Your task to perform on an android device: toggle show notifications on the lock screen Image 0: 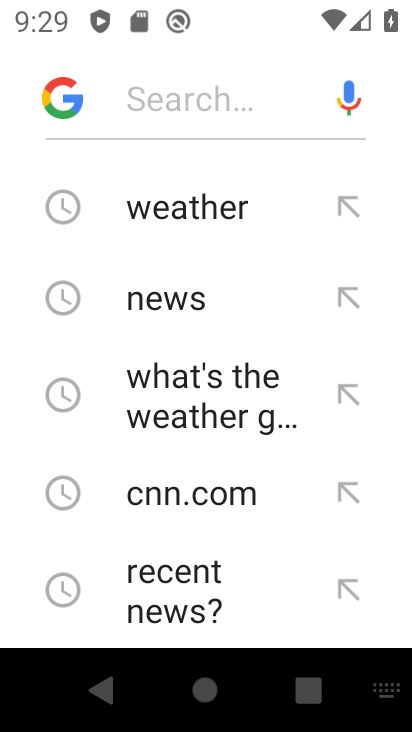
Step 0: press back button
Your task to perform on an android device: toggle show notifications on the lock screen Image 1: 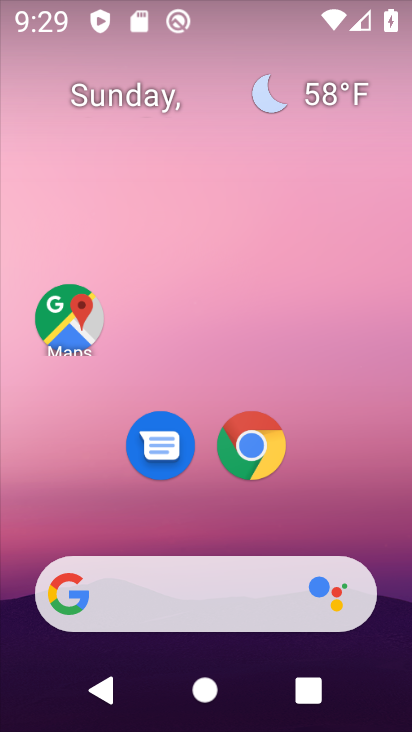
Step 1: drag from (161, 589) to (219, 152)
Your task to perform on an android device: toggle show notifications on the lock screen Image 2: 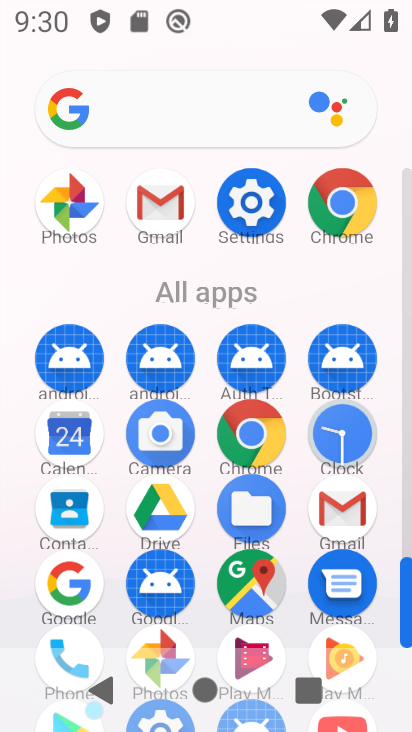
Step 2: click (247, 206)
Your task to perform on an android device: toggle show notifications on the lock screen Image 3: 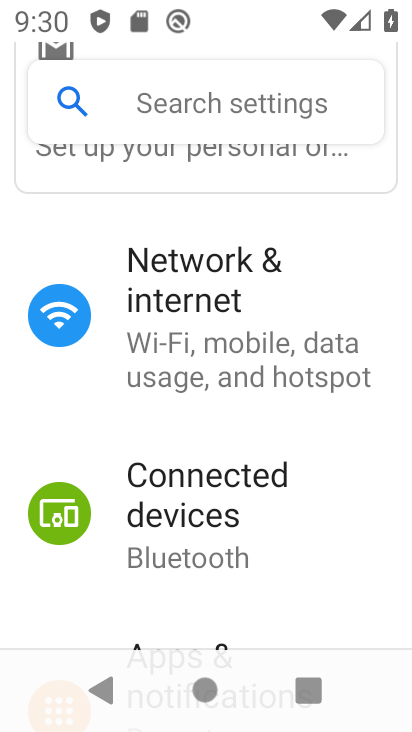
Step 3: drag from (157, 463) to (167, 68)
Your task to perform on an android device: toggle show notifications on the lock screen Image 4: 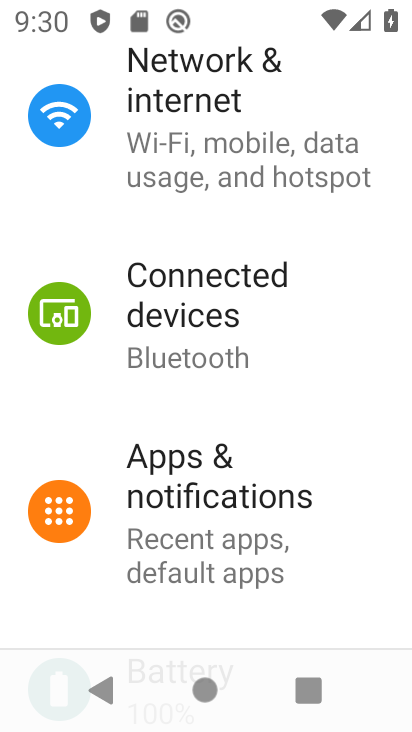
Step 4: click (162, 475)
Your task to perform on an android device: toggle show notifications on the lock screen Image 5: 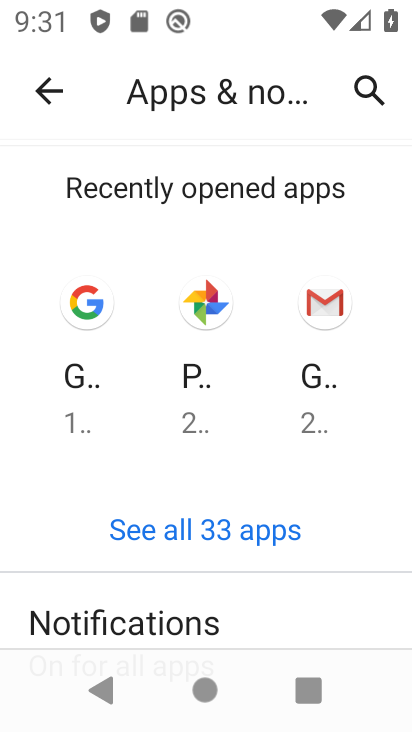
Step 5: click (237, 604)
Your task to perform on an android device: toggle show notifications on the lock screen Image 6: 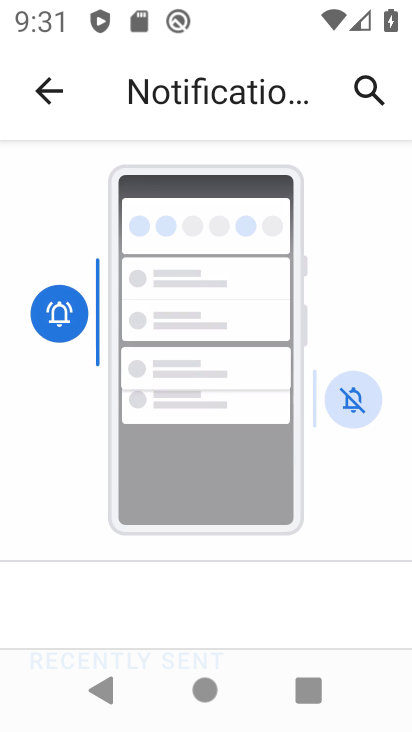
Step 6: drag from (164, 616) to (319, 62)
Your task to perform on an android device: toggle show notifications on the lock screen Image 7: 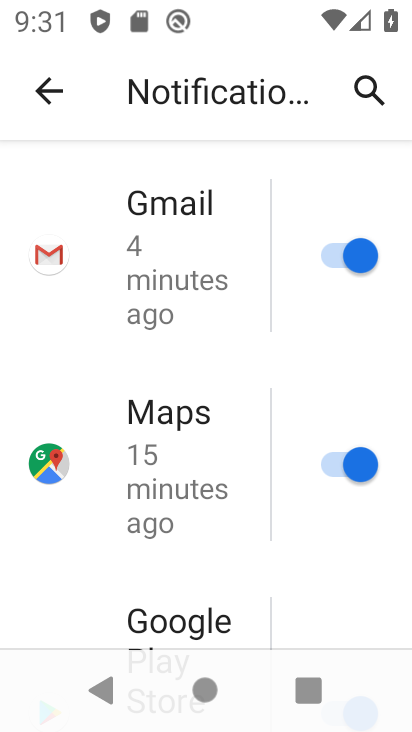
Step 7: drag from (185, 478) to (374, 0)
Your task to perform on an android device: toggle show notifications on the lock screen Image 8: 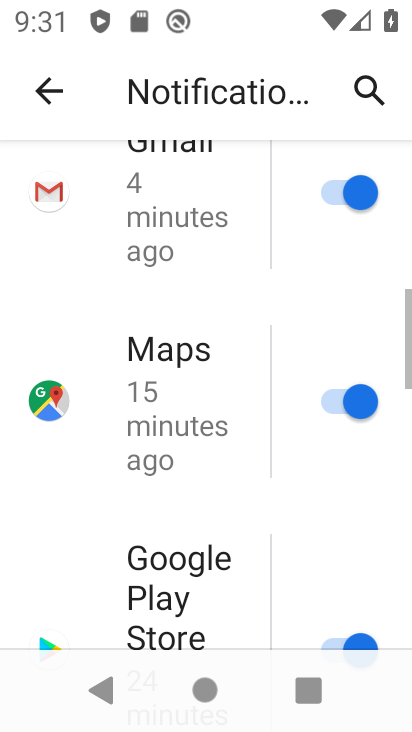
Step 8: drag from (279, 477) to (361, 3)
Your task to perform on an android device: toggle show notifications on the lock screen Image 9: 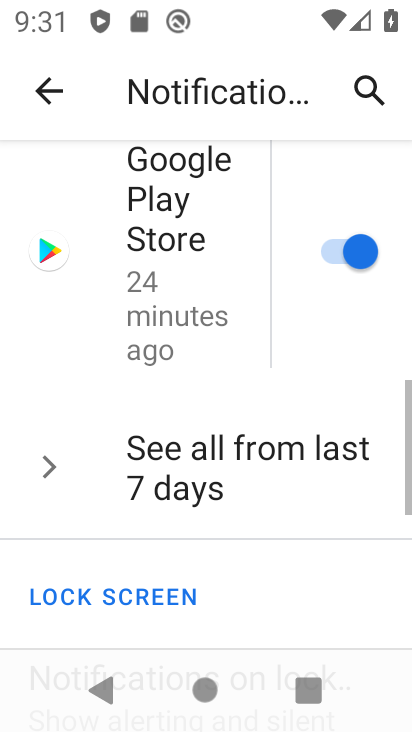
Step 9: drag from (245, 444) to (272, 5)
Your task to perform on an android device: toggle show notifications on the lock screen Image 10: 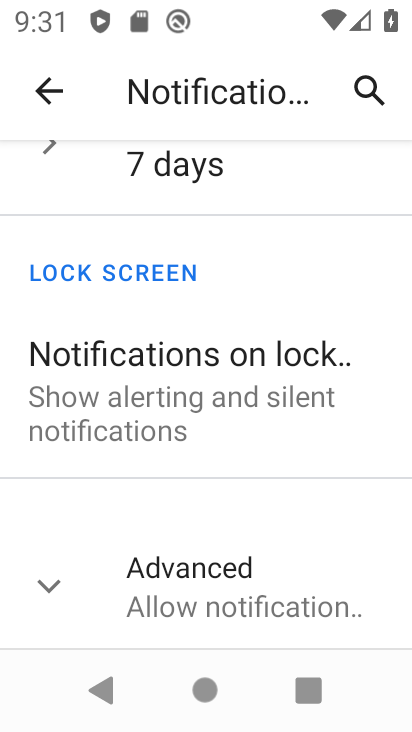
Step 10: click (167, 419)
Your task to perform on an android device: toggle show notifications on the lock screen Image 11: 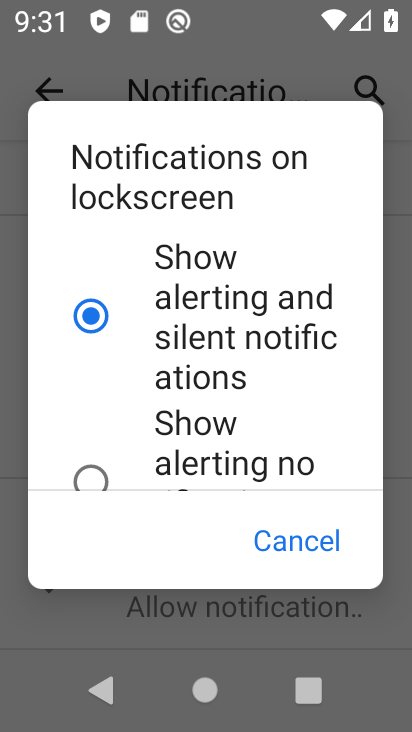
Step 11: drag from (167, 437) to (271, 48)
Your task to perform on an android device: toggle show notifications on the lock screen Image 12: 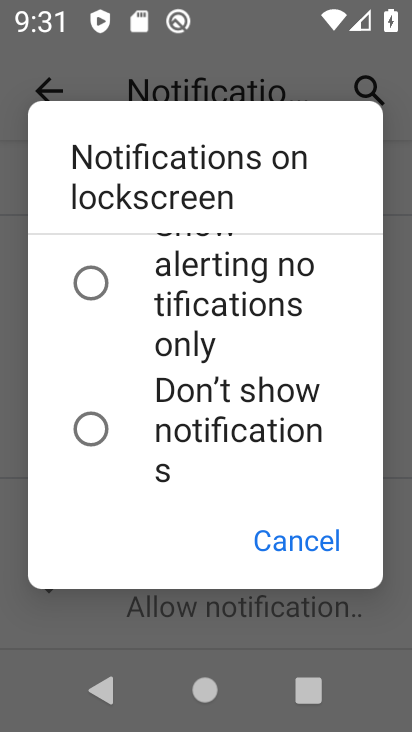
Step 12: click (193, 271)
Your task to perform on an android device: toggle show notifications on the lock screen Image 13: 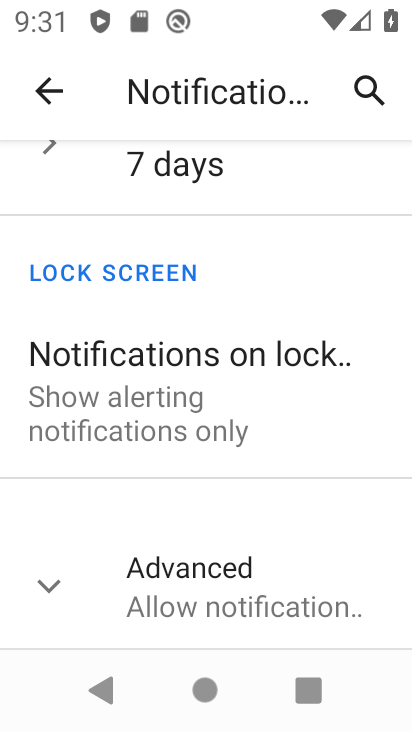
Step 13: task complete